Your task to perform on an android device: open app "DoorDash - Food Delivery" Image 0: 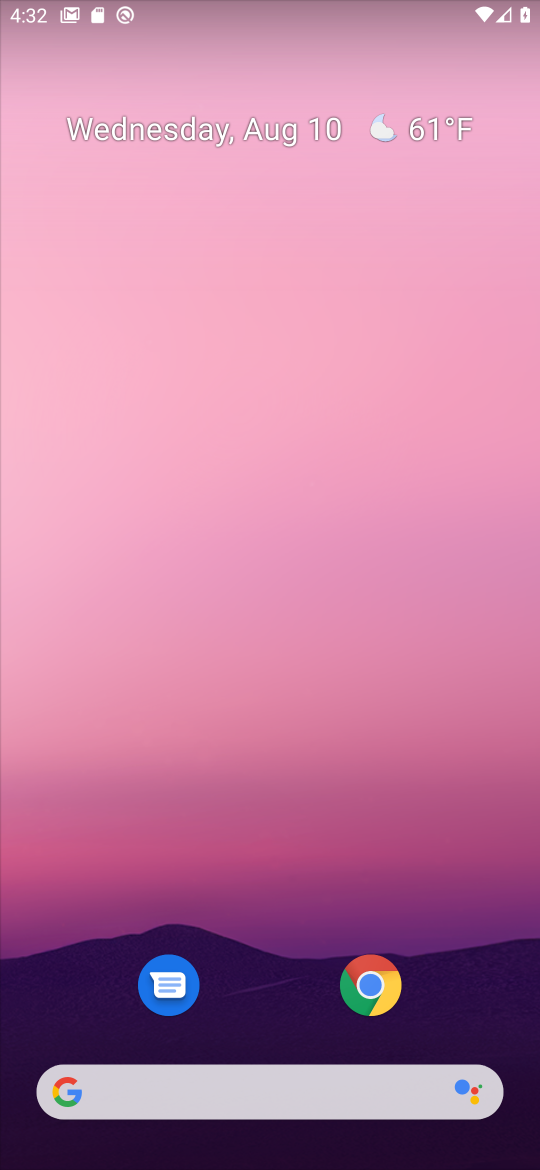
Step 0: drag from (259, 1008) to (231, 35)
Your task to perform on an android device: open app "DoorDash - Food Delivery" Image 1: 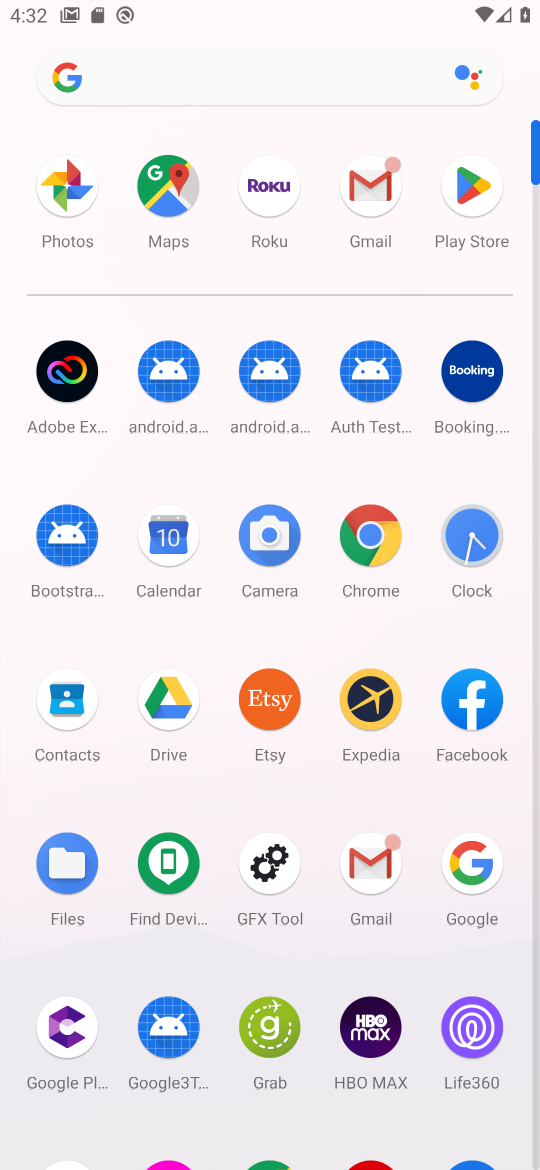
Step 1: click (460, 197)
Your task to perform on an android device: open app "DoorDash - Food Delivery" Image 2: 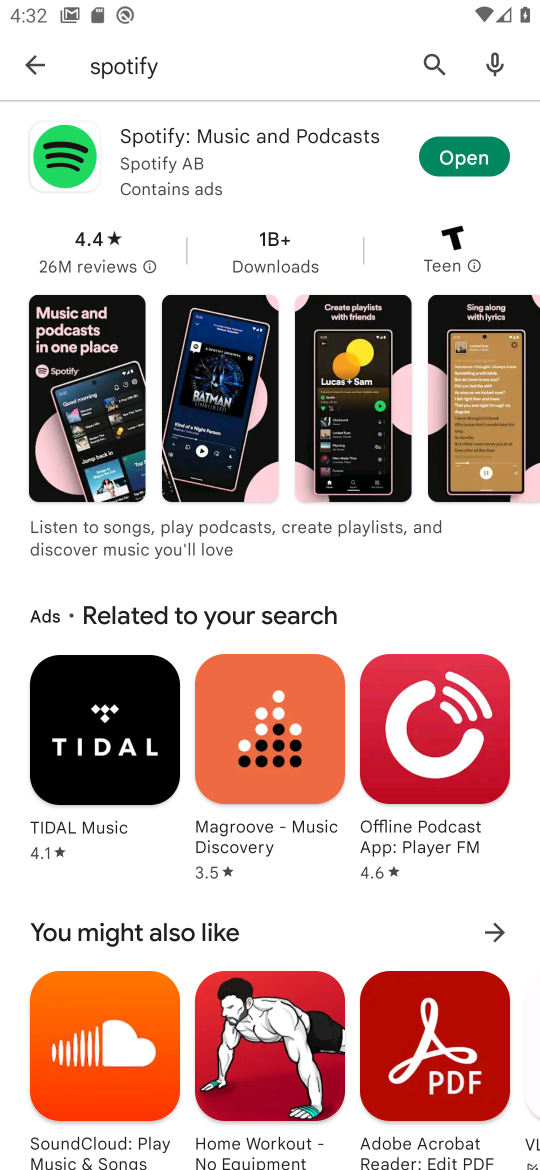
Step 2: click (24, 62)
Your task to perform on an android device: open app "DoorDash - Food Delivery" Image 3: 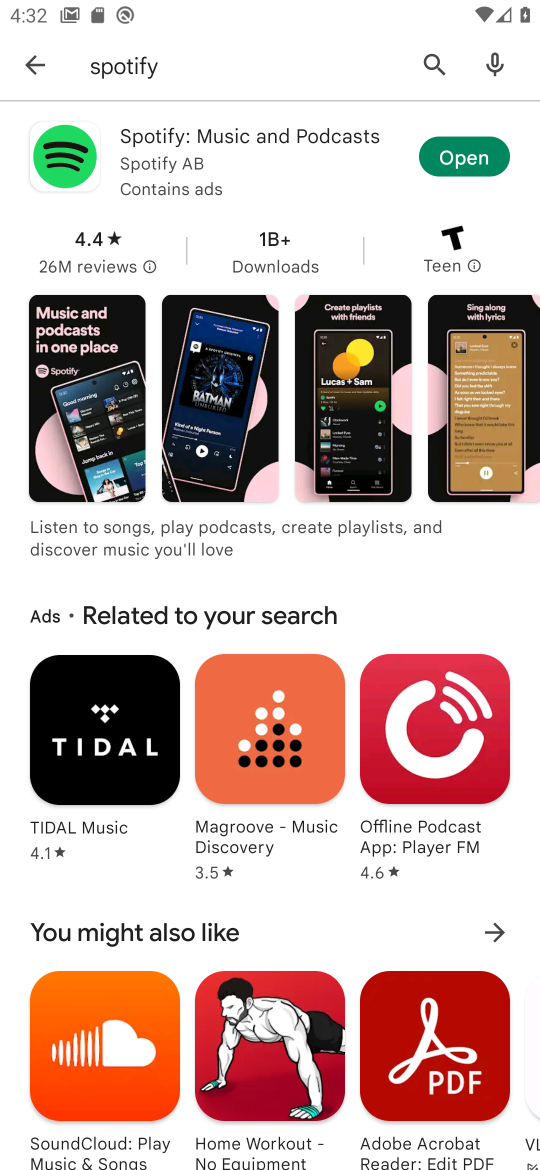
Step 3: click (35, 65)
Your task to perform on an android device: open app "DoorDash - Food Delivery" Image 4: 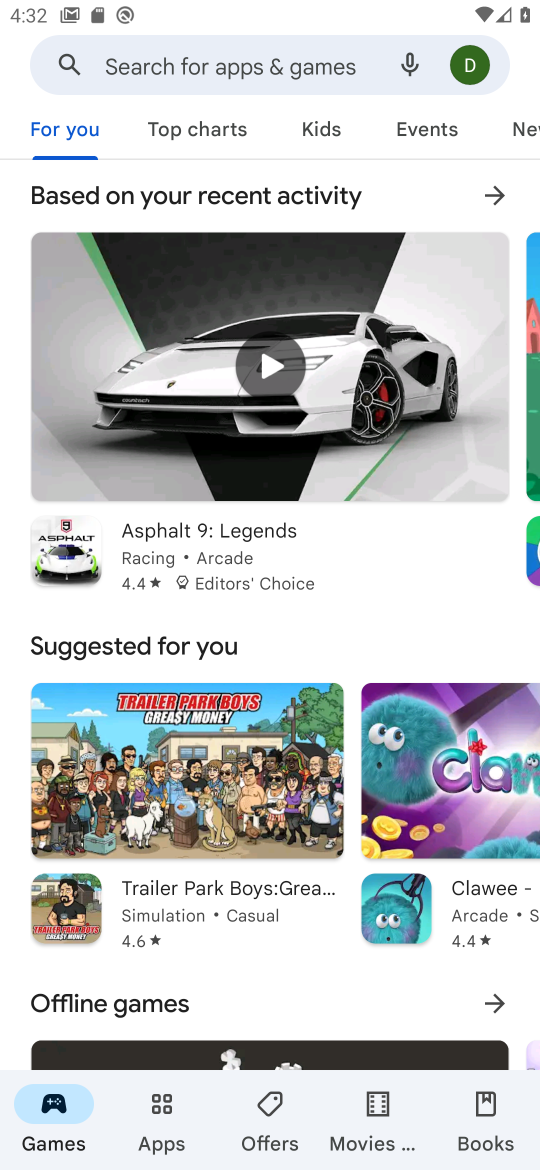
Step 4: click (220, 65)
Your task to perform on an android device: open app "DoorDash - Food Delivery" Image 5: 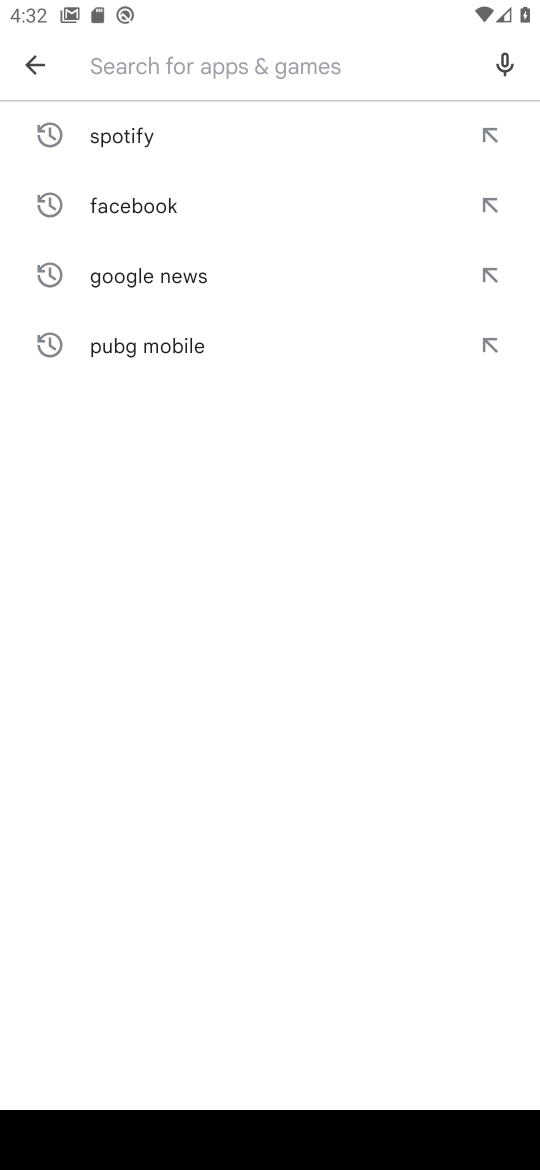
Step 5: type "Food Delivery"
Your task to perform on an android device: open app "DoorDash - Food Delivery" Image 6: 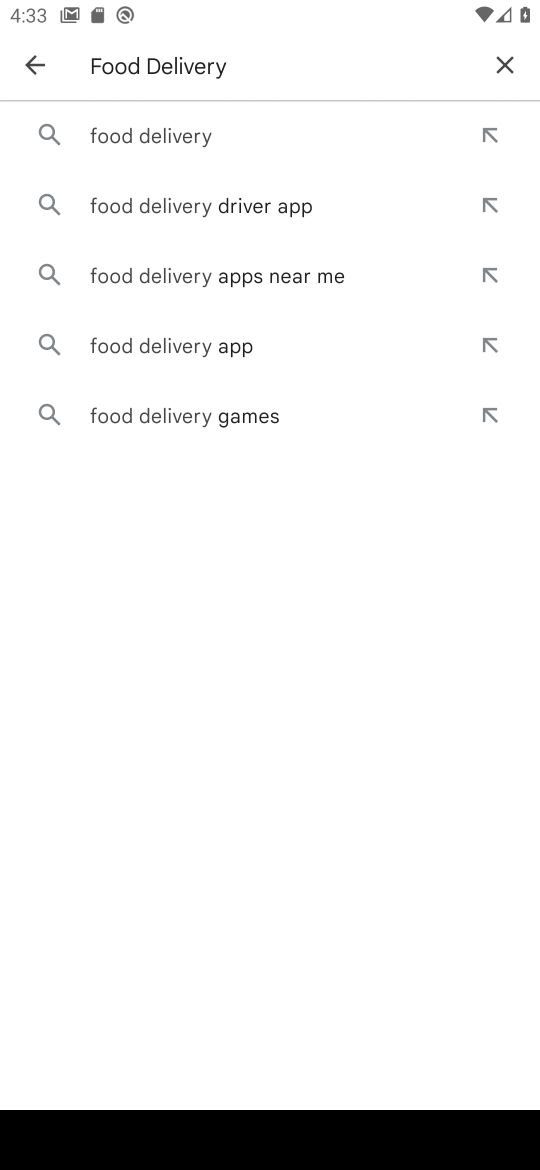
Step 6: click (163, 136)
Your task to perform on an android device: open app "DoorDash - Food Delivery" Image 7: 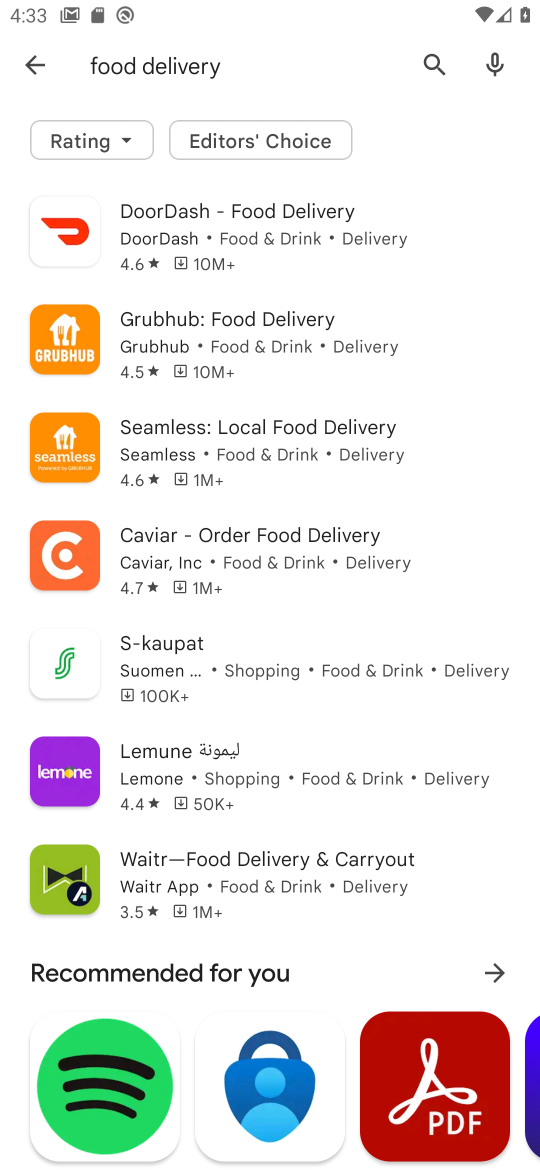
Step 7: click (219, 240)
Your task to perform on an android device: open app "DoorDash - Food Delivery" Image 8: 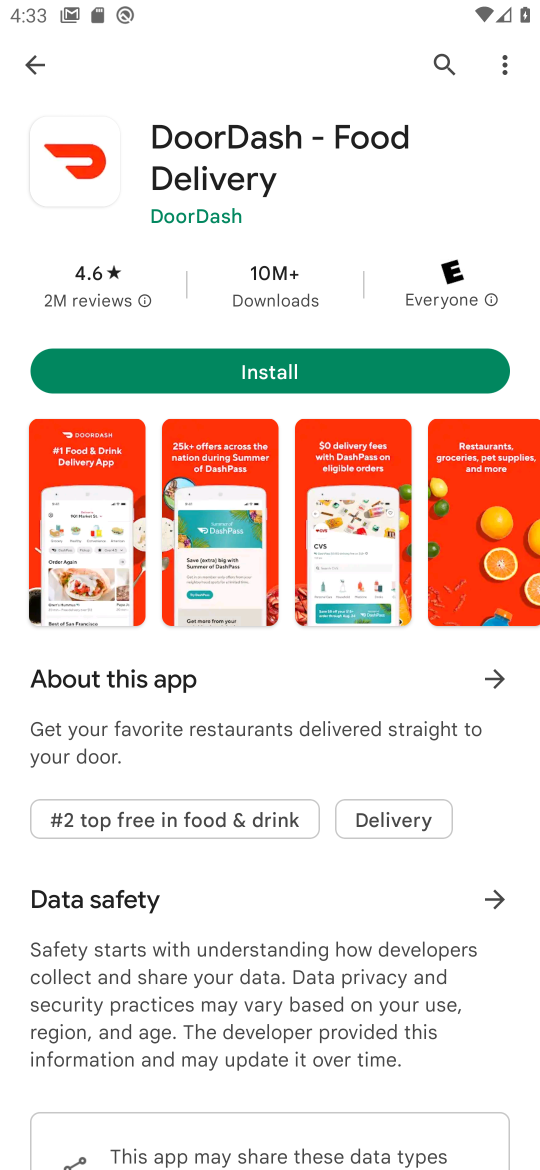
Step 8: click (263, 367)
Your task to perform on an android device: open app "DoorDash - Food Delivery" Image 9: 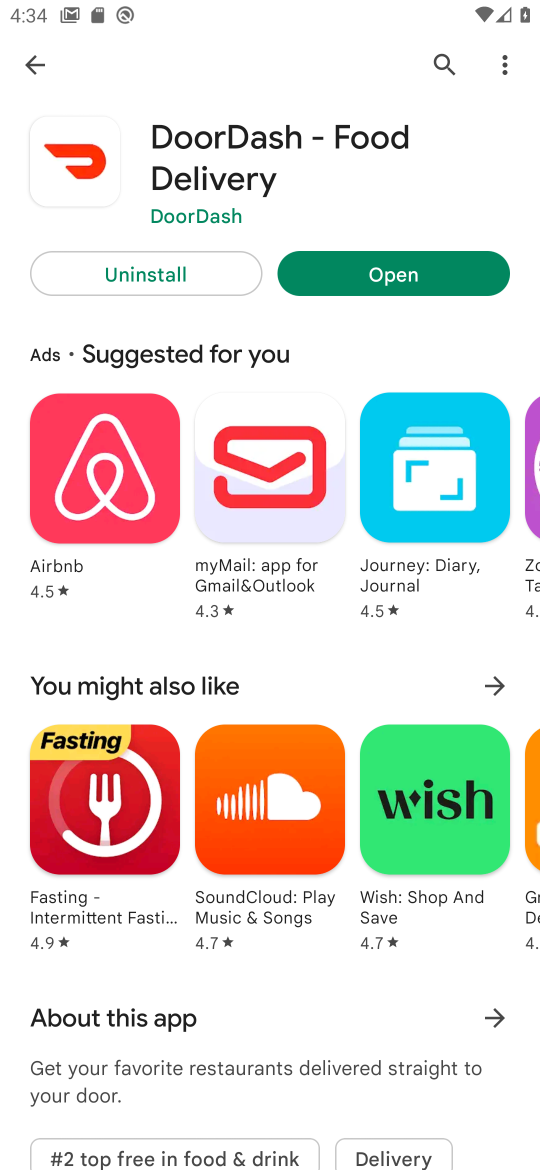
Step 9: click (376, 284)
Your task to perform on an android device: open app "DoorDash - Food Delivery" Image 10: 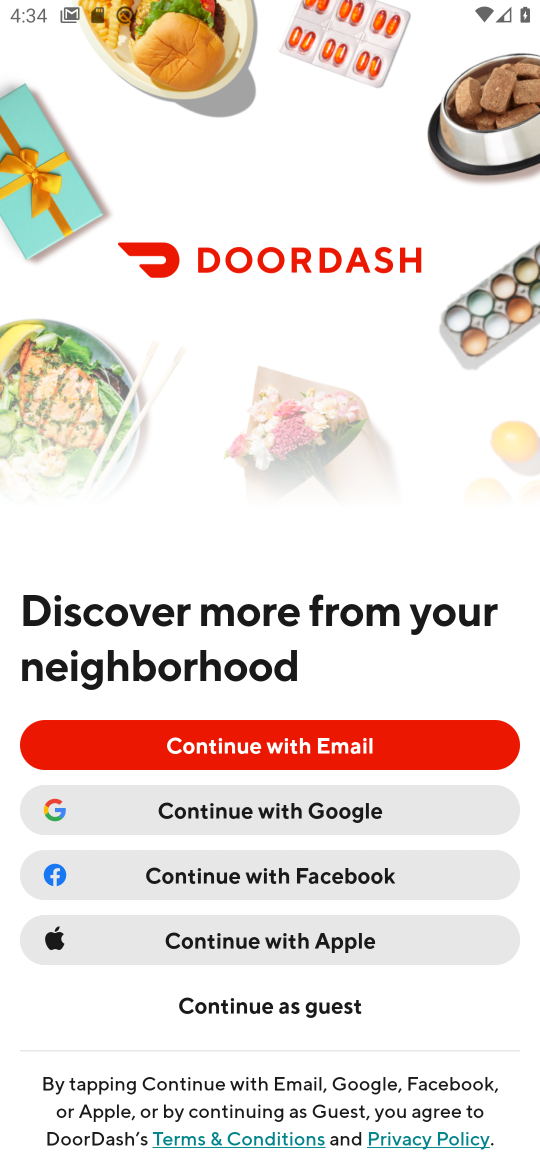
Step 10: task complete